Your task to perform on an android device: turn off improve location accuracy Image 0: 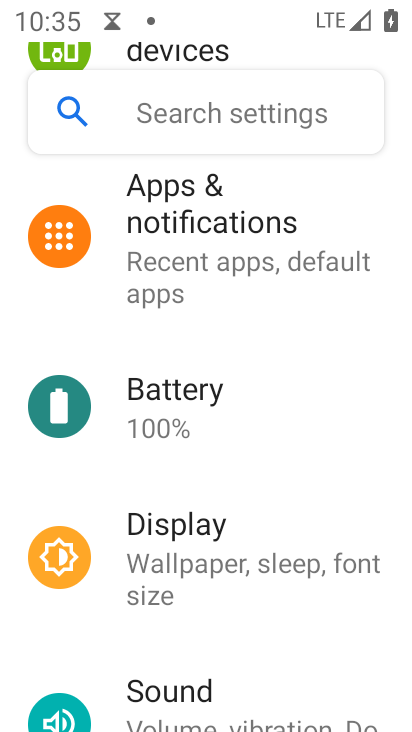
Step 0: press home button
Your task to perform on an android device: turn off improve location accuracy Image 1: 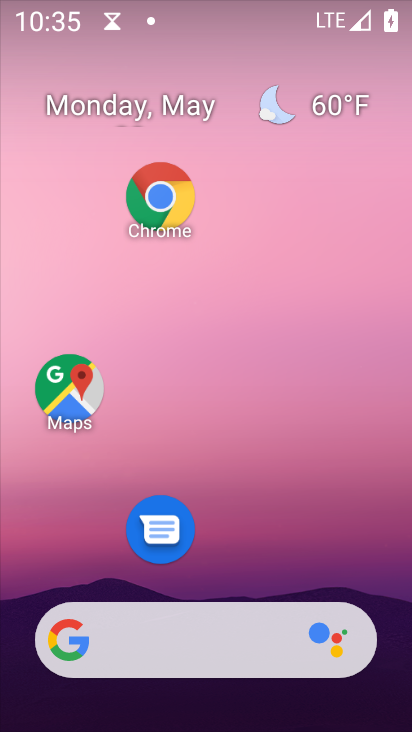
Step 1: drag from (266, 576) to (224, 118)
Your task to perform on an android device: turn off improve location accuracy Image 2: 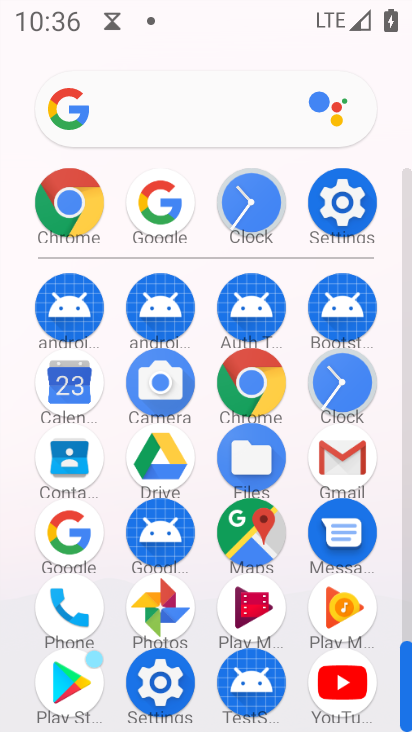
Step 2: click (347, 217)
Your task to perform on an android device: turn off improve location accuracy Image 3: 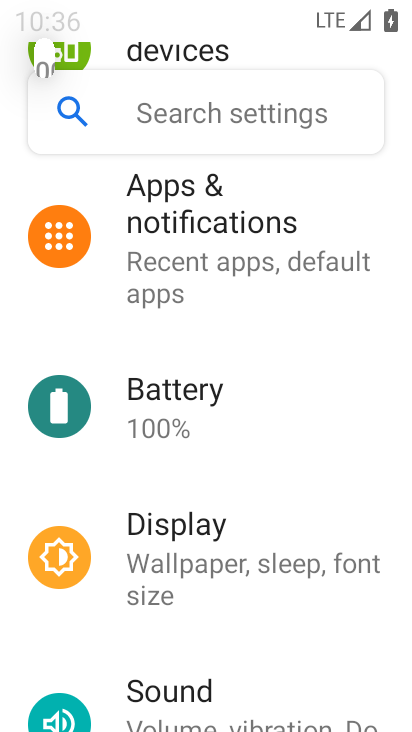
Step 3: drag from (182, 685) to (170, 358)
Your task to perform on an android device: turn off improve location accuracy Image 4: 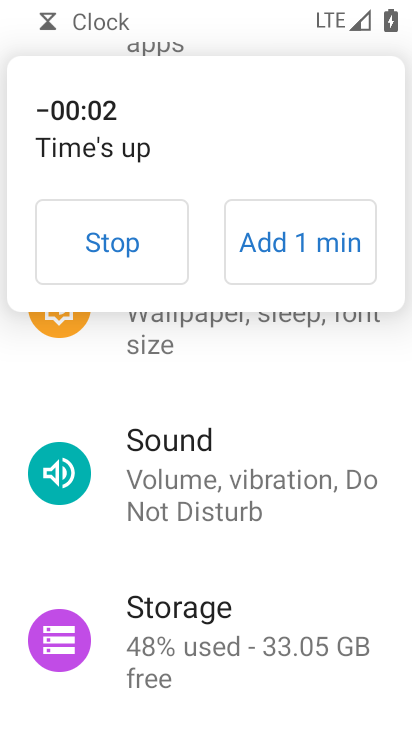
Step 4: click (114, 262)
Your task to perform on an android device: turn off improve location accuracy Image 5: 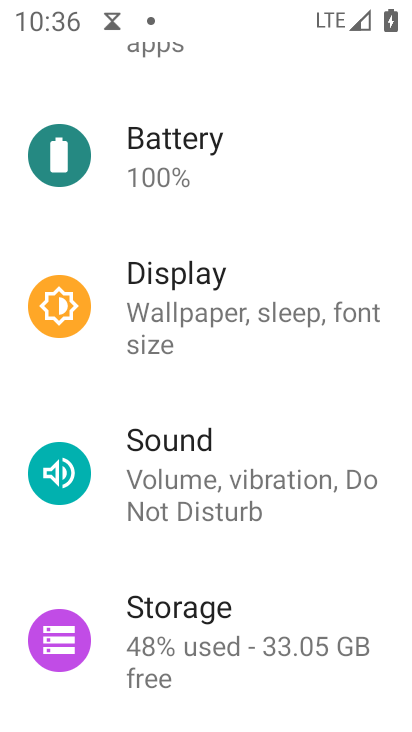
Step 5: drag from (190, 437) to (190, 255)
Your task to perform on an android device: turn off improve location accuracy Image 6: 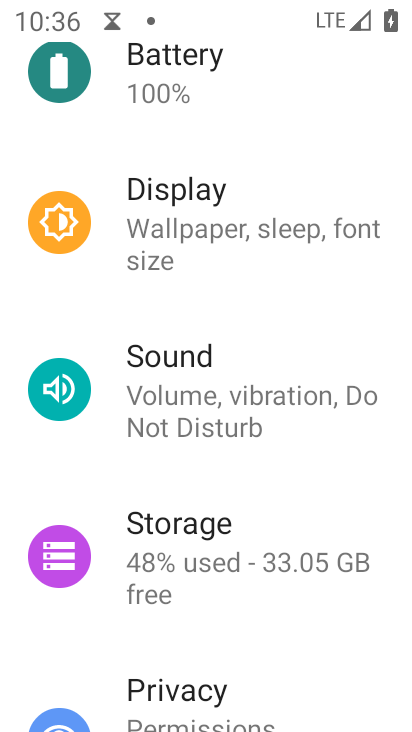
Step 6: drag from (193, 533) to (193, 197)
Your task to perform on an android device: turn off improve location accuracy Image 7: 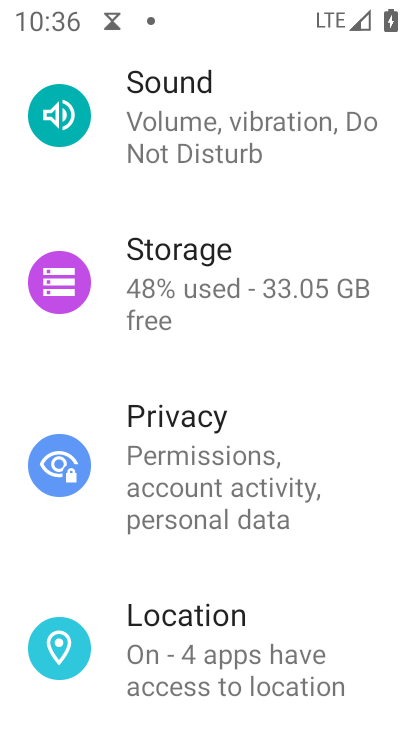
Step 7: click (181, 641)
Your task to perform on an android device: turn off improve location accuracy Image 8: 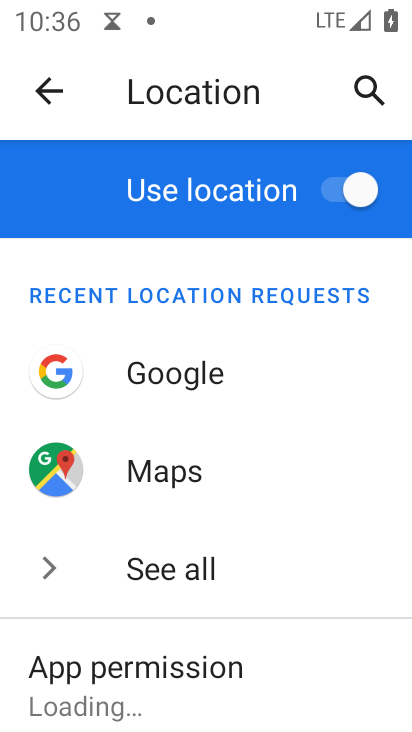
Step 8: drag from (219, 651) to (168, 315)
Your task to perform on an android device: turn off improve location accuracy Image 9: 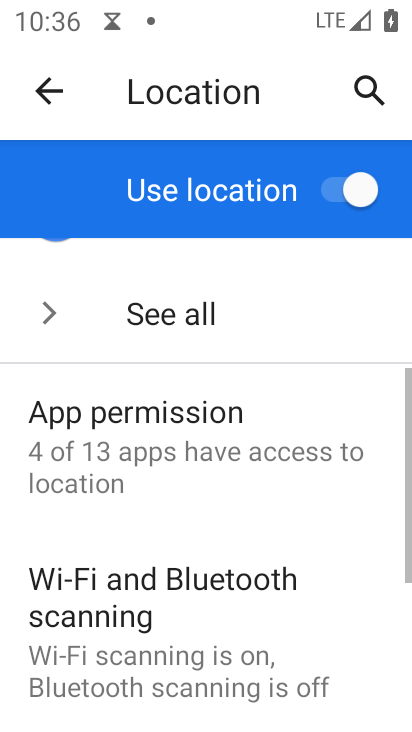
Step 9: drag from (167, 679) to (160, 389)
Your task to perform on an android device: turn off improve location accuracy Image 10: 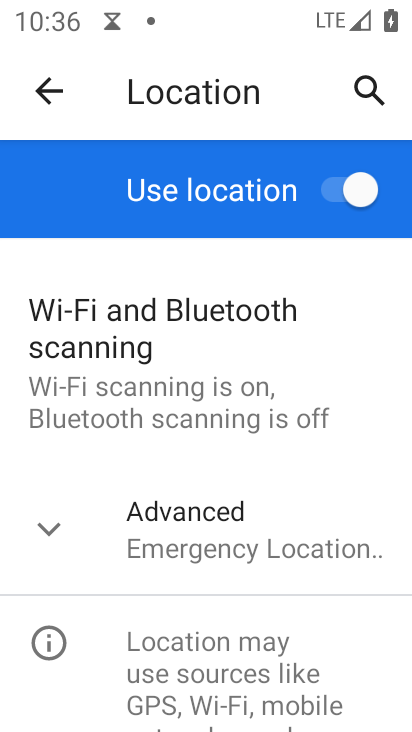
Step 10: click (132, 515)
Your task to perform on an android device: turn off improve location accuracy Image 11: 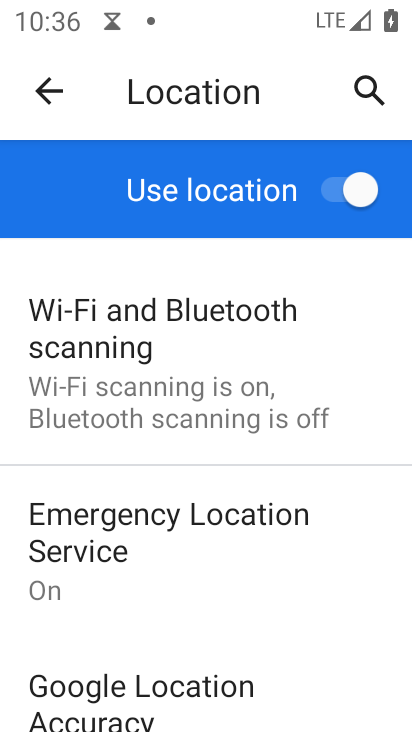
Step 11: drag from (172, 706) to (170, 403)
Your task to perform on an android device: turn off improve location accuracy Image 12: 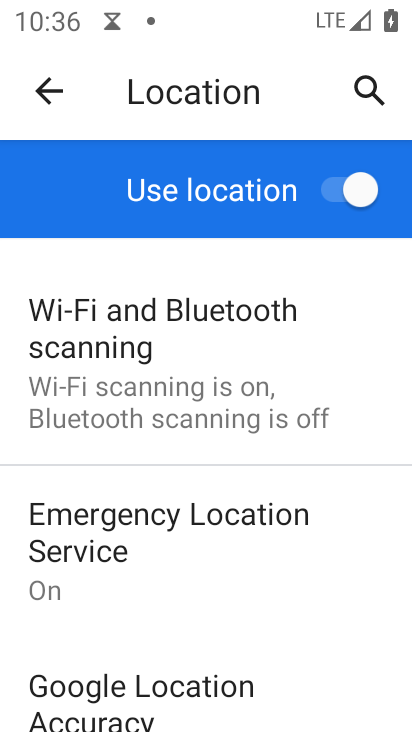
Step 12: click (117, 719)
Your task to perform on an android device: turn off improve location accuracy Image 13: 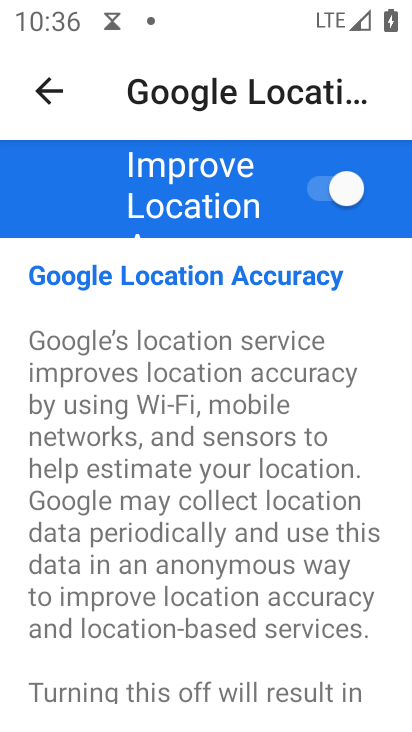
Step 13: click (313, 188)
Your task to perform on an android device: turn off improve location accuracy Image 14: 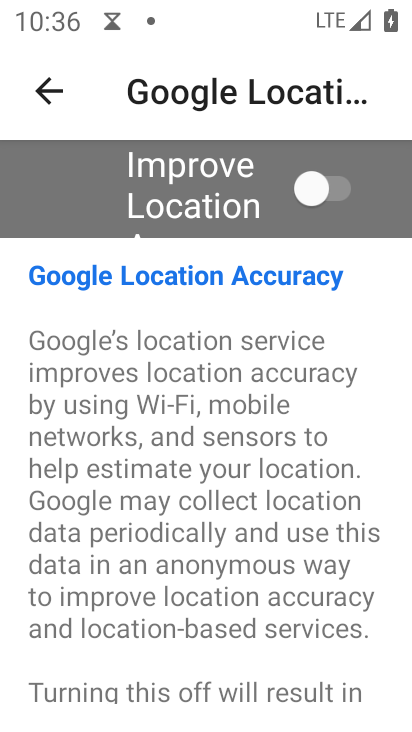
Step 14: task complete